Your task to perform on an android device: change keyboard looks Image 0: 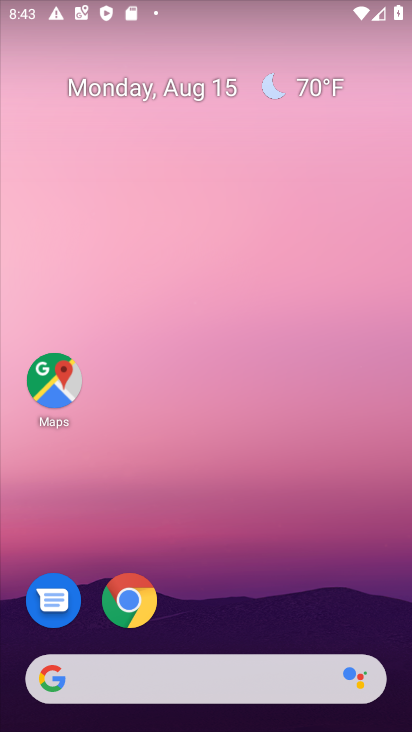
Step 0: drag from (223, 637) to (173, 63)
Your task to perform on an android device: change keyboard looks Image 1: 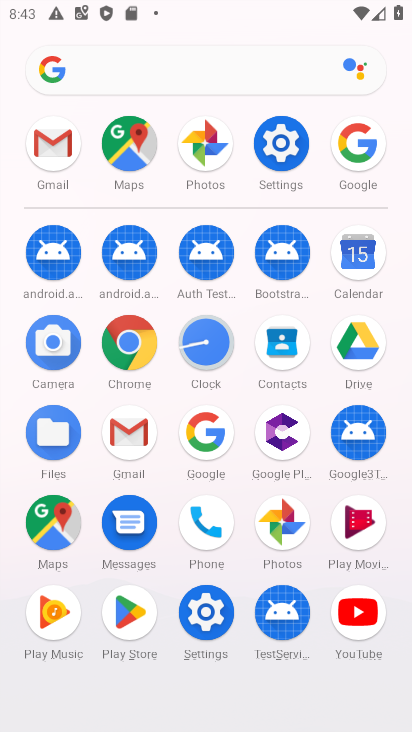
Step 1: click (282, 140)
Your task to perform on an android device: change keyboard looks Image 2: 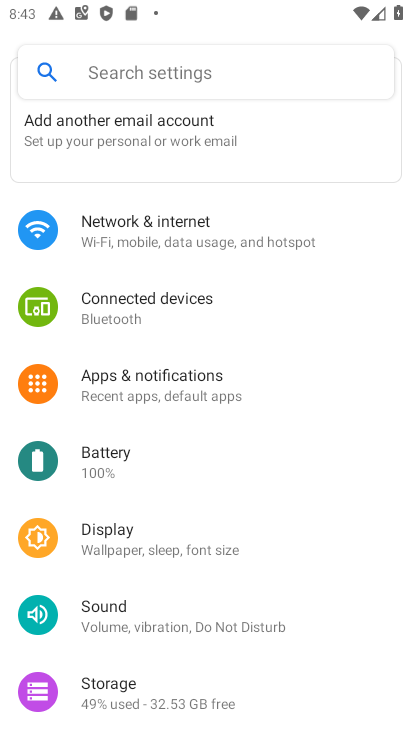
Step 2: drag from (168, 676) to (158, 219)
Your task to perform on an android device: change keyboard looks Image 3: 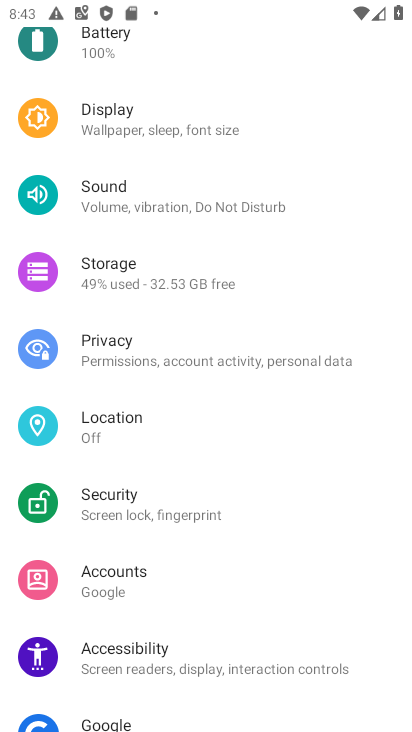
Step 3: drag from (142, 688) to (168, 245)
Your task to perform on an android device: change keyboard looks Image 4: 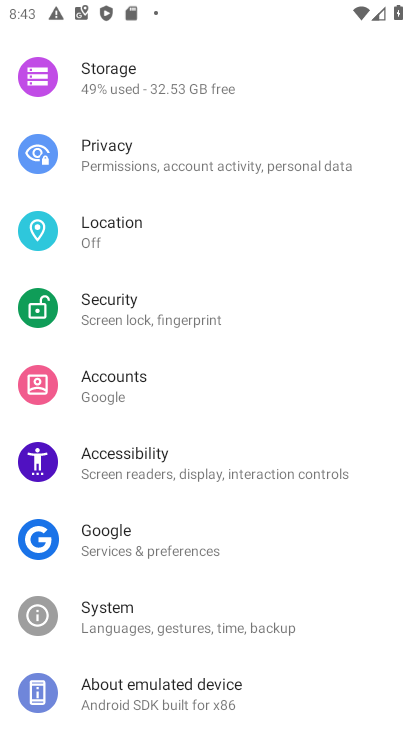
Step 4: click (123, 622)
Your task to perform on an android device: change keyboard looks Image 5: 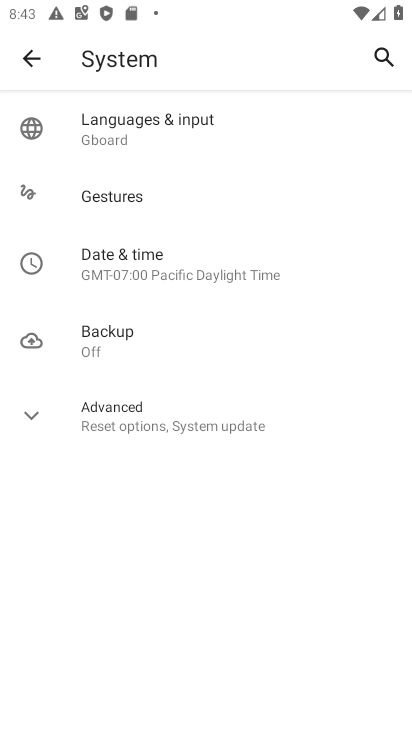
Step 5: click (118, 124)
Your task to perform on an android device: change keyboard looks Image 6: 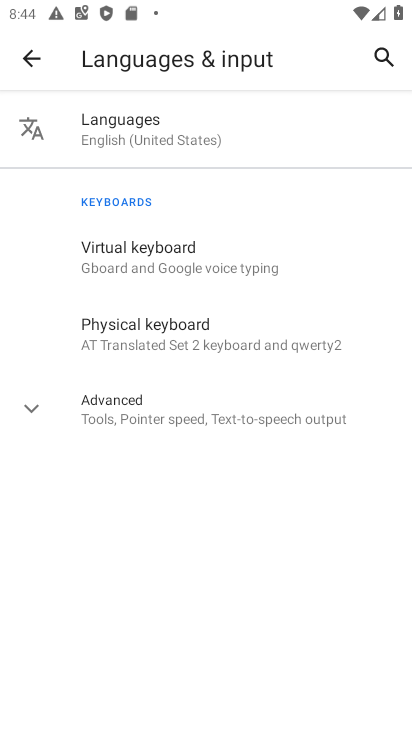
Step 6: click (151, 250)
Your task to perform on an android device: change keyboard looks Image 7: 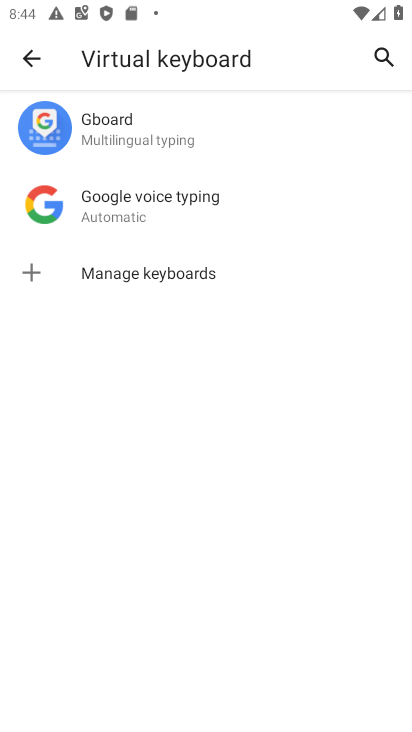
Step 7: click (119, 128)
Your task to perform on an android device: change keyboard looks Image 8: 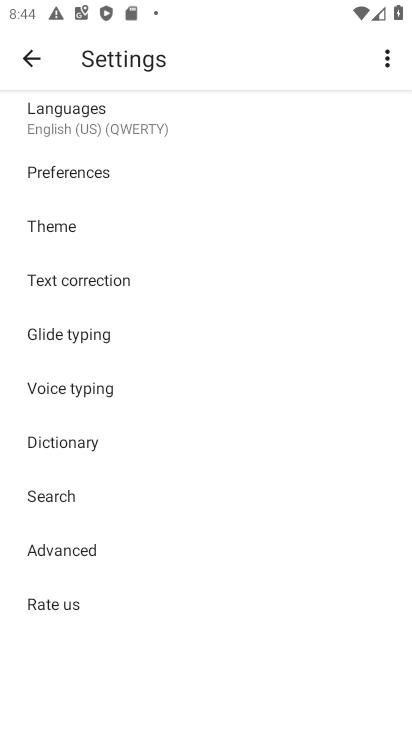
Step 8: click (59, 227)
Your task to perform on an android device: change keyboard looks Image 9: 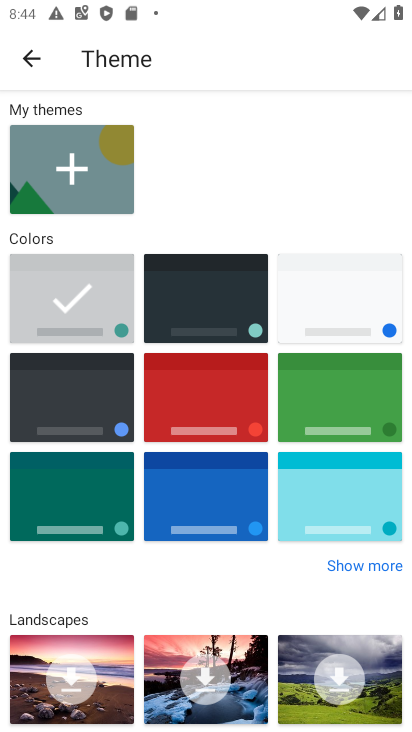
Step 9: click (211, 407)
Your task to perform on an android device: change keyboard looks Image 10: 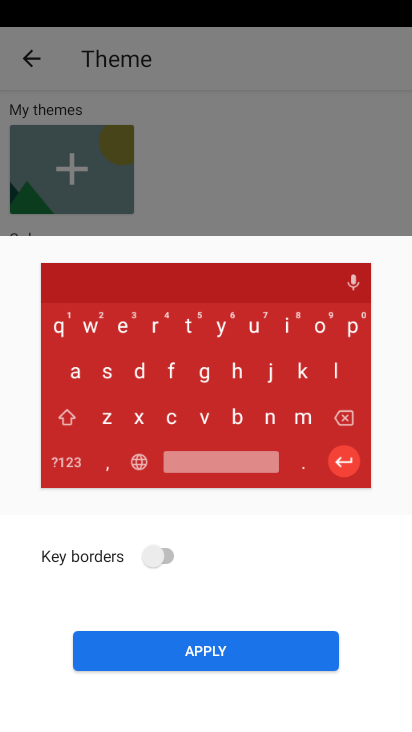
Step 10: click (173, 552)
Your task to perform on an android device: change keyboard looks Image 11: 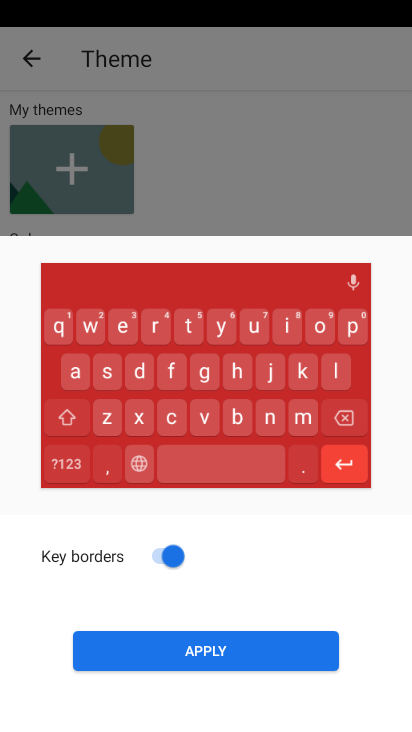
Step 11: click (247, 651)
Your task to perform on an android device: change keyboard looks Image 12: 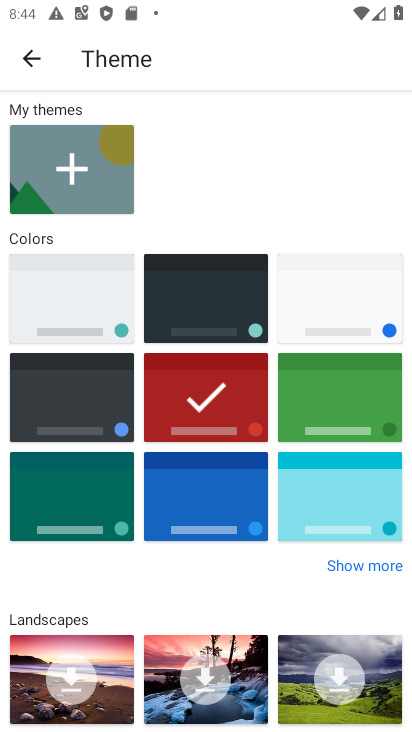
Step 12: task complete